Your task to perform on an android device: Search for flights from Mexico city to Sydney Image 0: 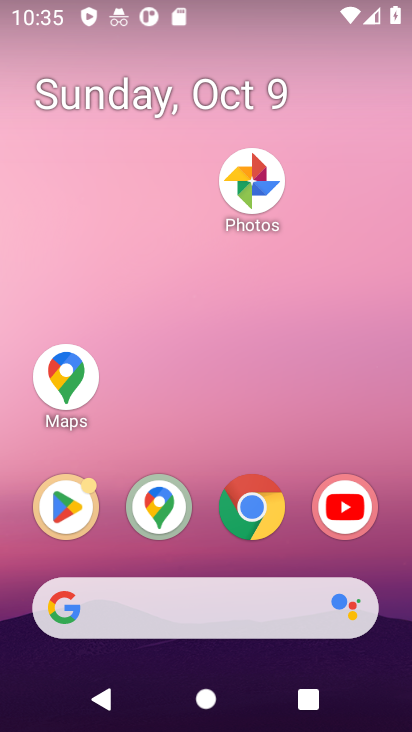
Step 0: drag from (295, 574) to (300, 289)
Your task to perform on an android device: Search for flights from Mexico city to Sydney Image 1: 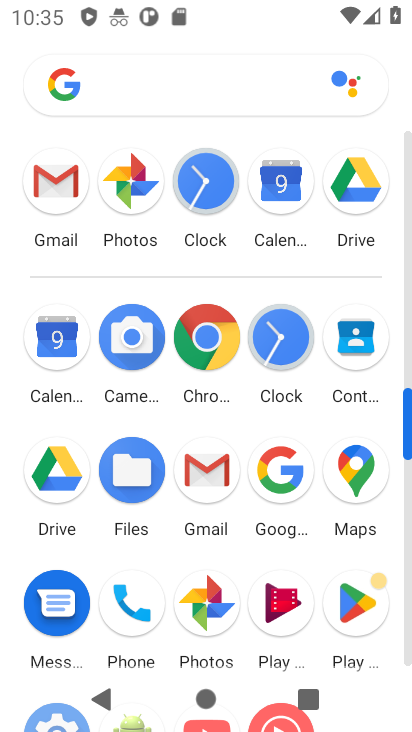
Step 1: click (207, 334)
Your task to perform on an android device: Search for flights from Mexico city to Sydney Image 2: 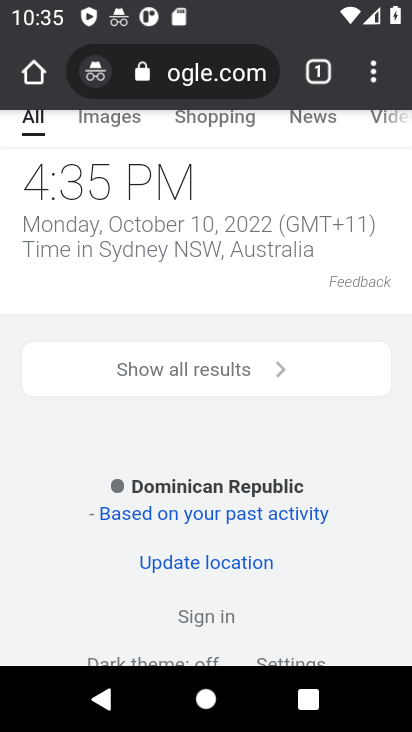
Step 2: click (213, 83)
Your task to perform on an android device: Search for flights from Mexico city to Sydney Image 3: 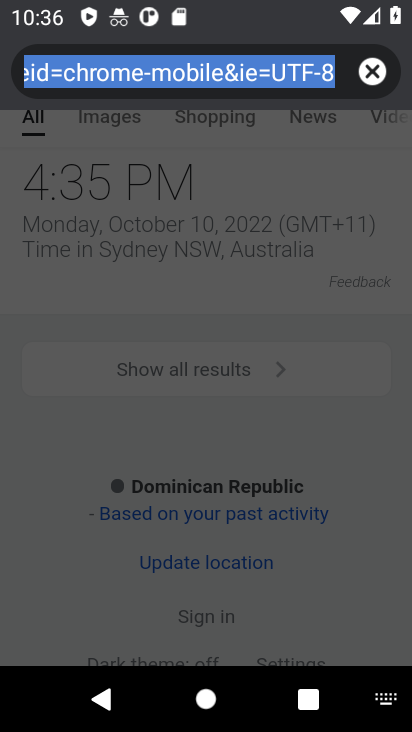
Step 3: type "flights from Mexico city to Sydney"
Your task to perform on an android device: Search for flights from Mexico city to Sydney Image 4: 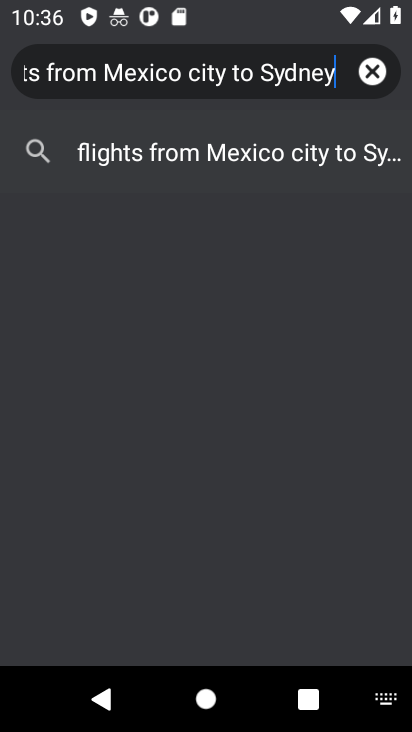
Step 4: press enter
Your task to perform on an android device: Search for flights from Mexico city to Sydney Image 5: 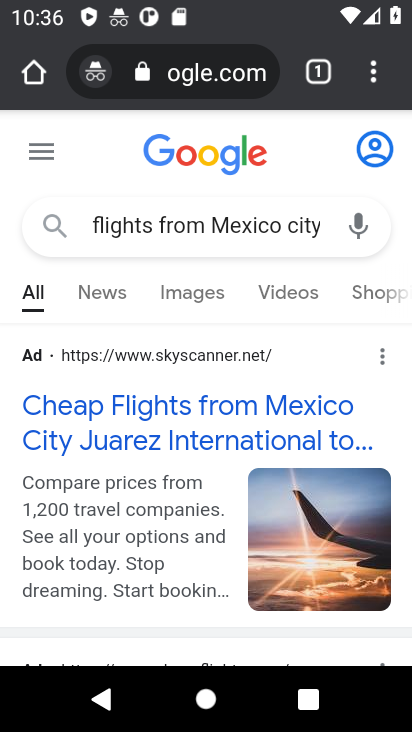
Step 5: drag from (209, 504) to (234, 43)
Your task to perform on an android device: Search for flights from Mexico city to Sydney Image 6: 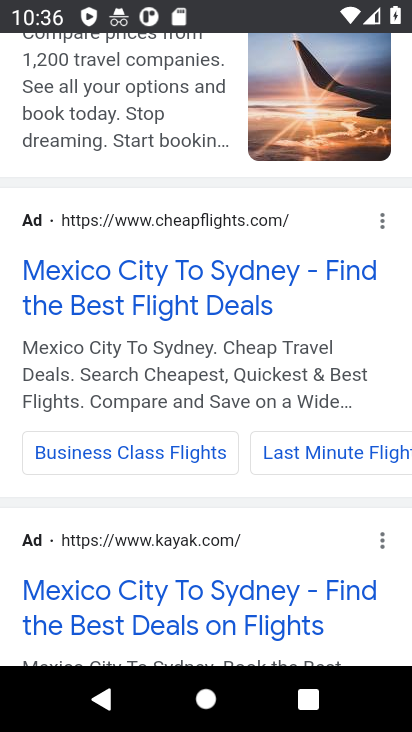
Step 6: drag from (224, 557) to (263, 149)
Your task to perform on an android device: Search for flights from Mexico city to Sydney Image 7: 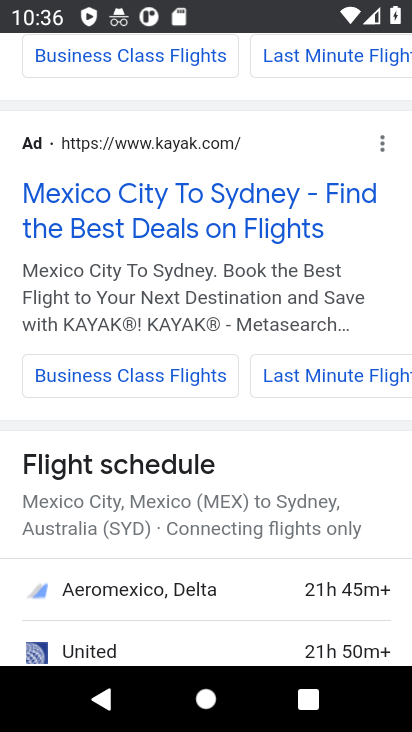
Step 7: drag from (249, 557) to (303, 187)
Your task to perform on an android device: Search for flights from Mexico city to Sydney Image 8: 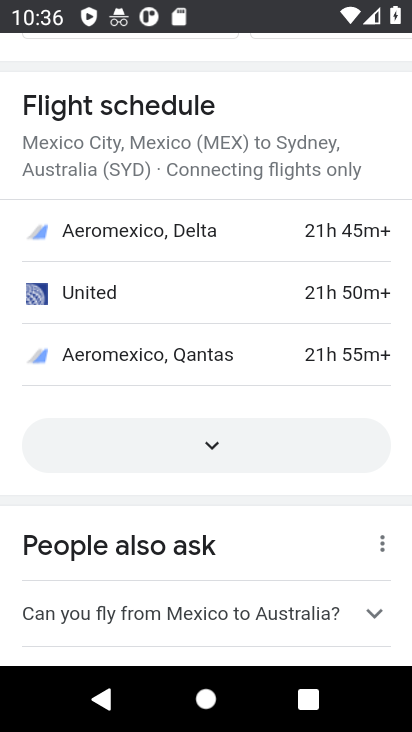
Step 8: click (212, 445)
Your task to perform on an android device: Search for flights from Mexico city to Sydney Image 9: 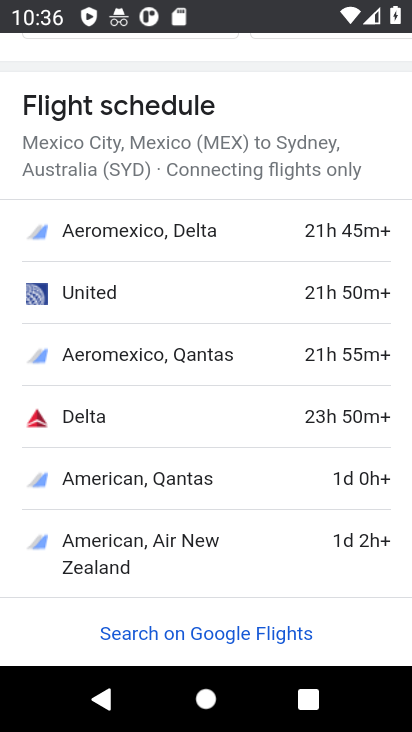
Step 9: task complete